Your task to perform on an android device: Open Chrome and go to settings Image 0: 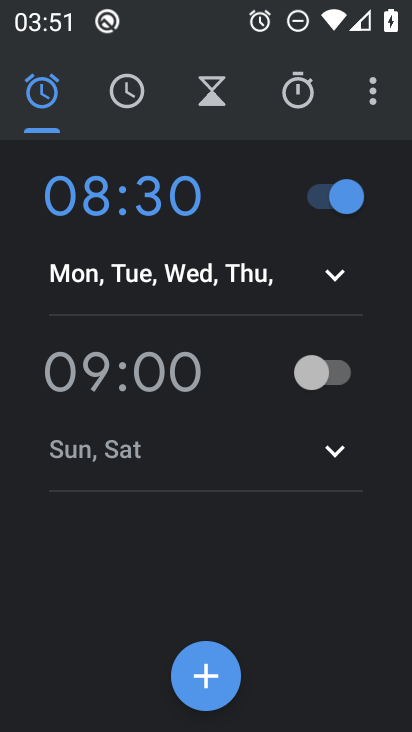
Step 0: press home button
Your task to perform on an android device: Open Chrome and go to settings Image 1: 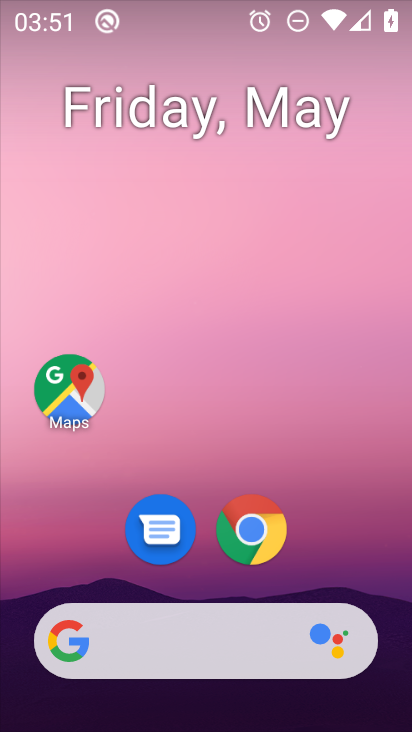
Step 1: click (280, 518)
Your task to perform on an android device: Open Chrome and go to settings Image 2: 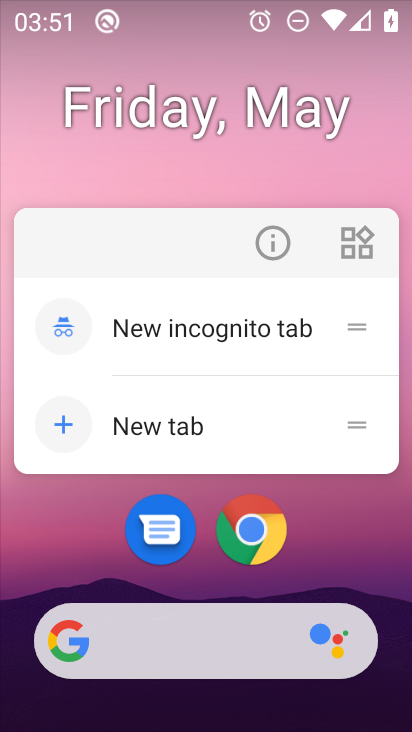
Step 2: click (254, 533)
Your task to perform on an android device: Open Chrome and go to settings Image 3: 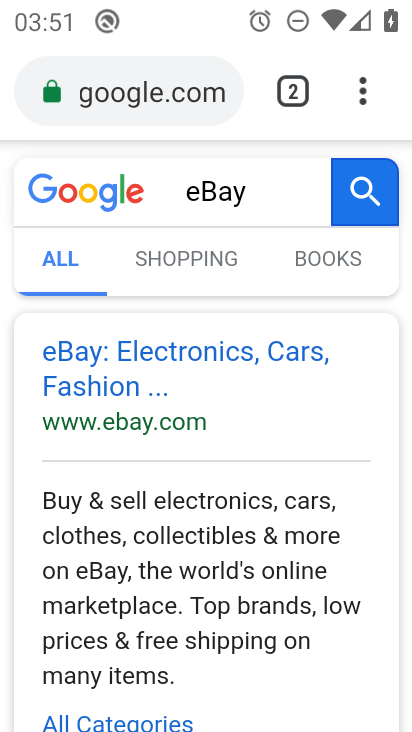
Step 3: click (362, 81)
Your task to perform on an android device: Open Chrome and go to settings Image 4: 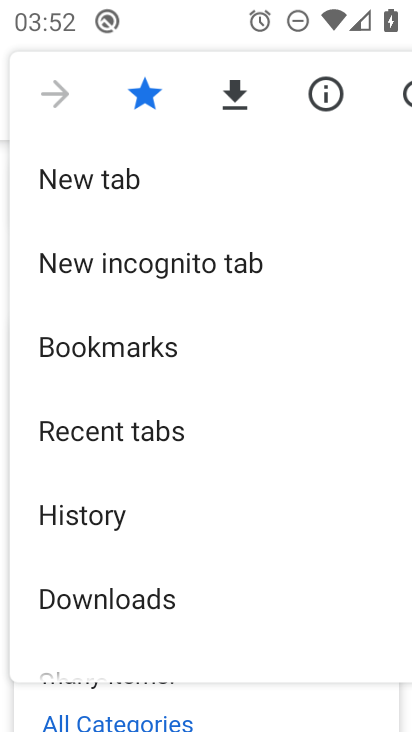
Step 4: drag from (284, 621) to (289, 223)
Your task to perform on an android device: Open Chrome and go to settings Image 5: 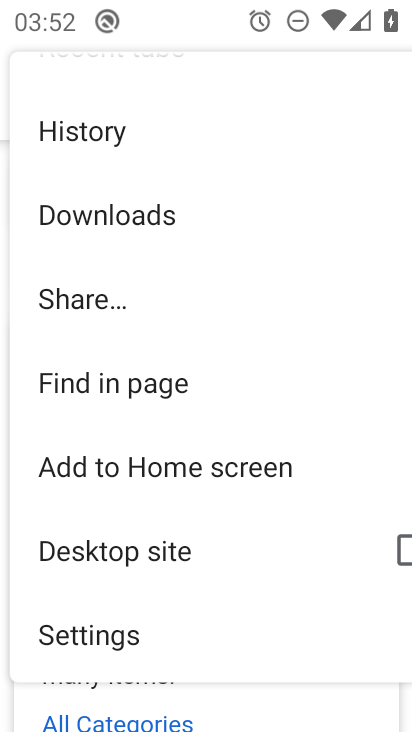
Step 5: drag from (271, 576) to (256, 368)
Your task to perform on an android device: Open Chrome and go to settings Image 6: 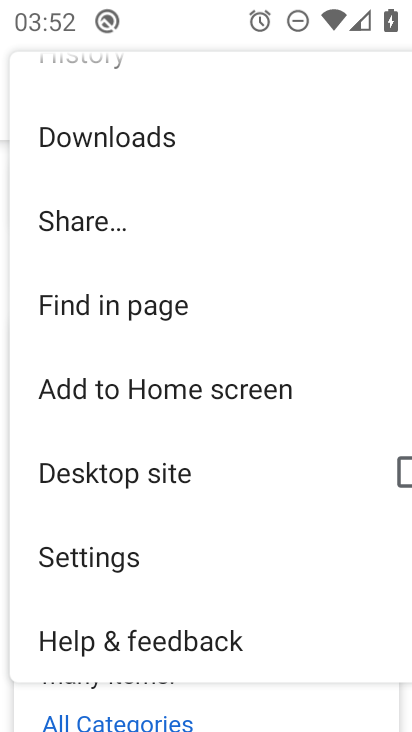
Step 6: click (85, 559)
Your task to perform on an android device: Open Chrome and go to settings Image 7: 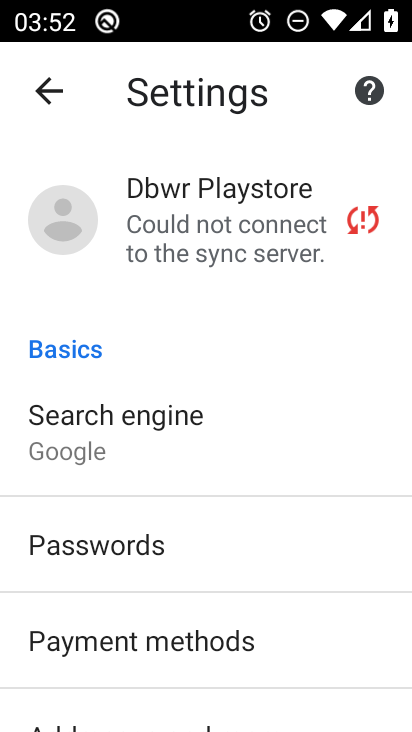
Step 7: task complete